Your task to perform on an android device: Open network settings Image 0: 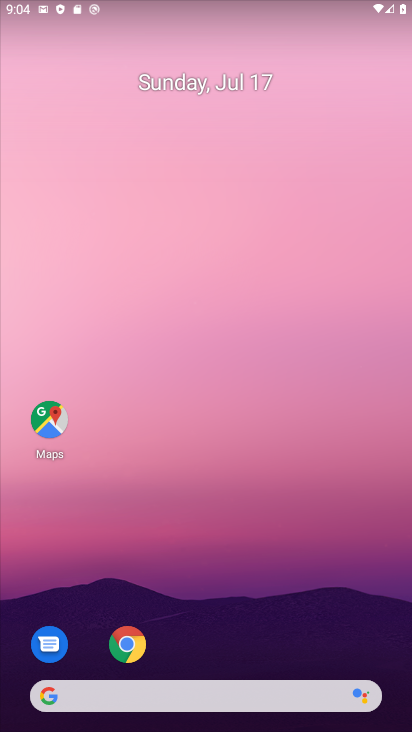
Step 0: drag from (245, 680) to (208, 72)
Your task to perform on an android device: Open network settings Image 1: 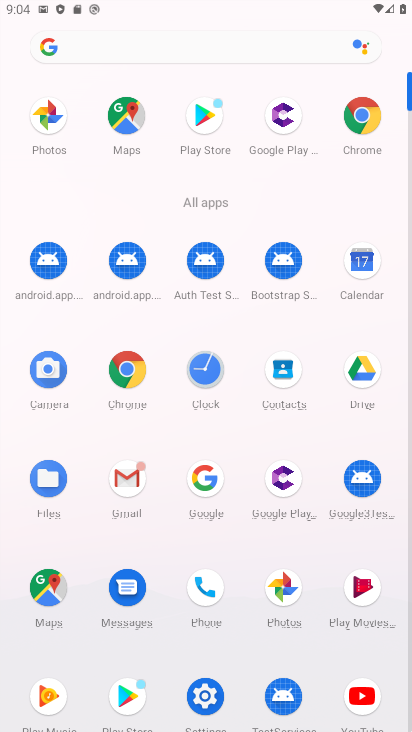
Step 1: click (203, 684)
Your task to perform on an android device: Open network settings Image 2: 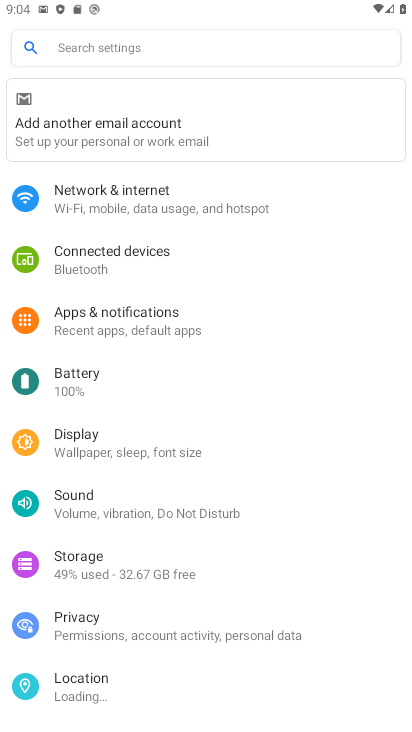
Step 2: click (110, 189)
Your task to perform on an android device: Open network settings Image 3: 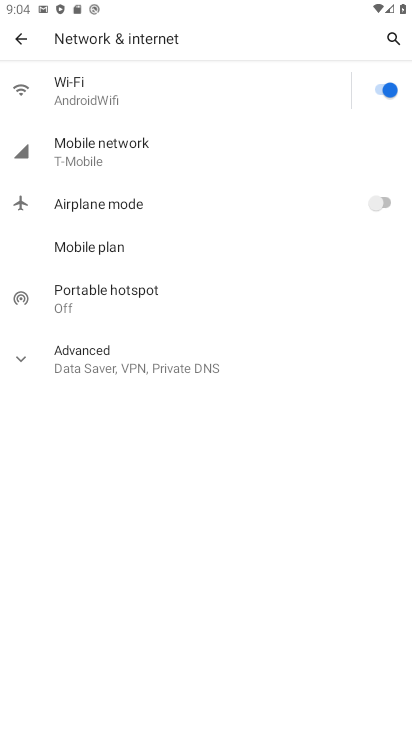
Step 3: click (83, 147)
Your task to perform on an android device: Open network settings Image 4: 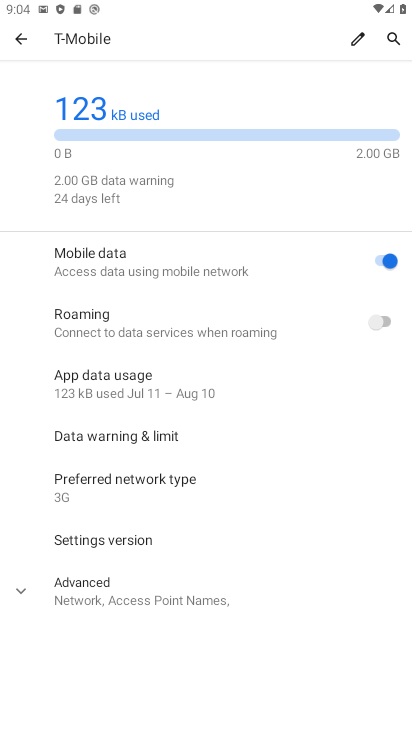
Step 4: click (102, 593)
Your task to perform on an android device: Open network settings Image 5: 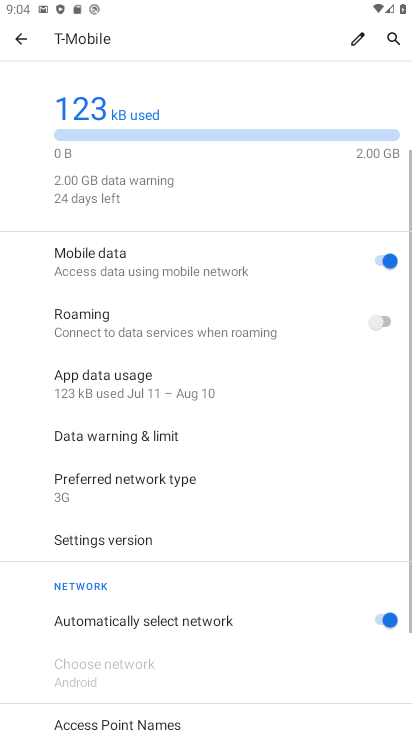
Step 5: task complete